Your task to perform on an android device: turn on sleep mode Image 0: 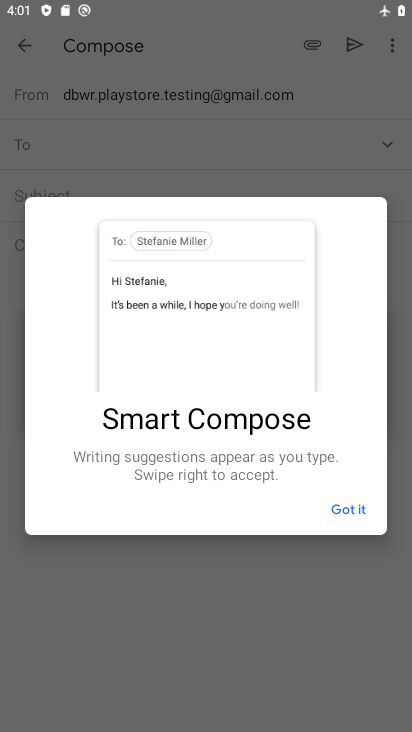
Step 0: press home button
Your task to perform on an android device: turn on sleep mode Image 1: 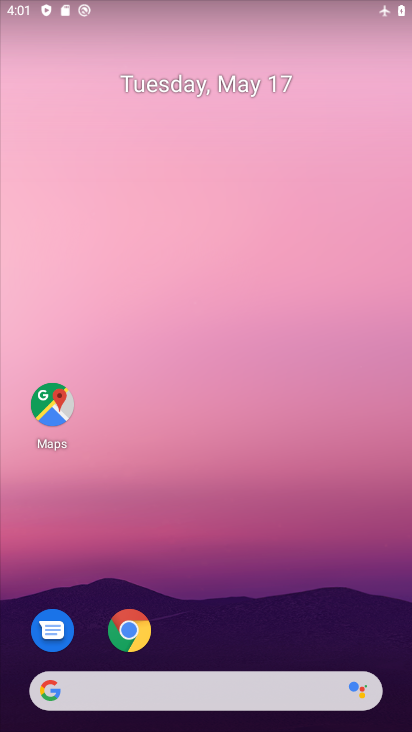
Step 1: drag from (227, 729) to (230, 241)
Your task to perform on an android device: turn on sleep mode Image 2: 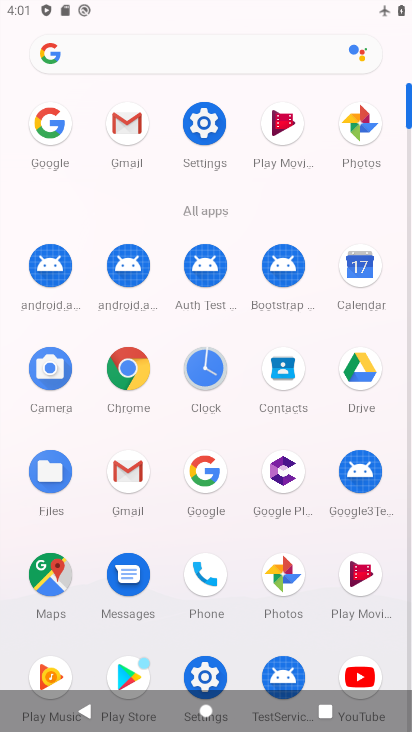
Step 2: click (209, 111)
Your task to perform on an android device: turn on sleep mode Image 3: 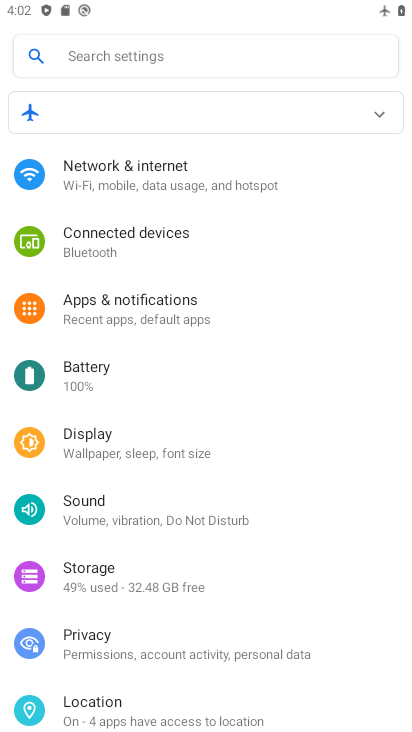
Step 3: click (101, 185)
Your task to perform on an android device: turn on sleep mode Image 4: 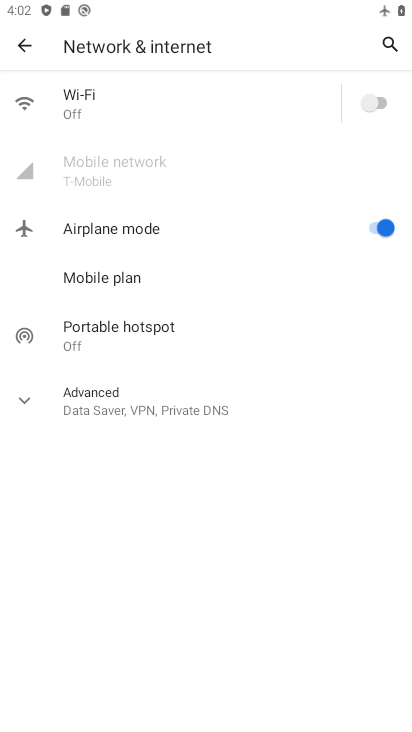
Step 4: press home button
Your task to perform on an android device: turn on sleep mode Image 5: 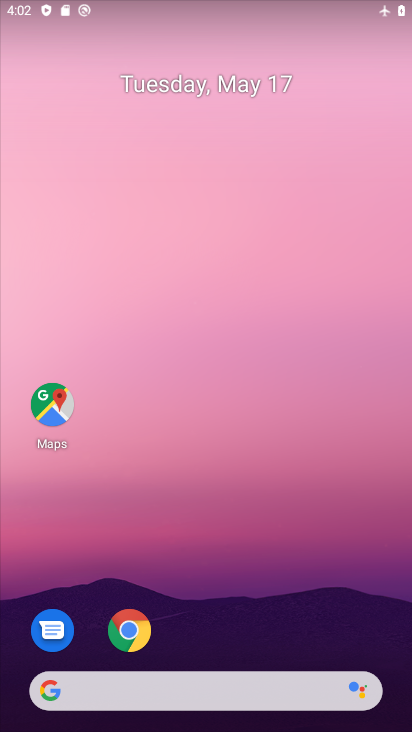
Step 5: drag from (212, 647) to (215, 287)
Your task to perform on an android device: turn on sleep mode Image 6: 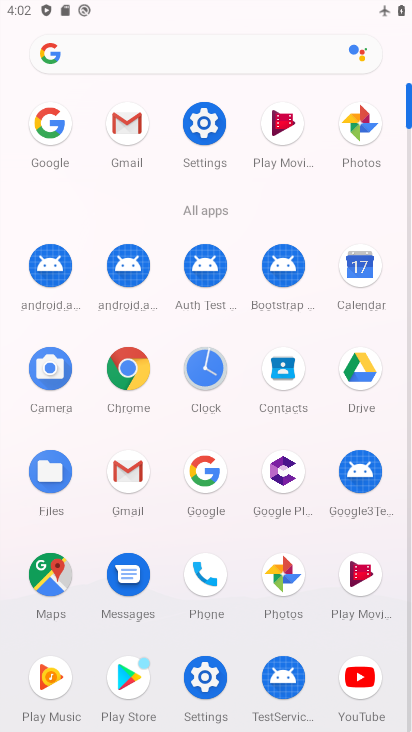
Step 6: click (211, 675)
Your task to perform on an android device: turn on sleep mode Image 7: 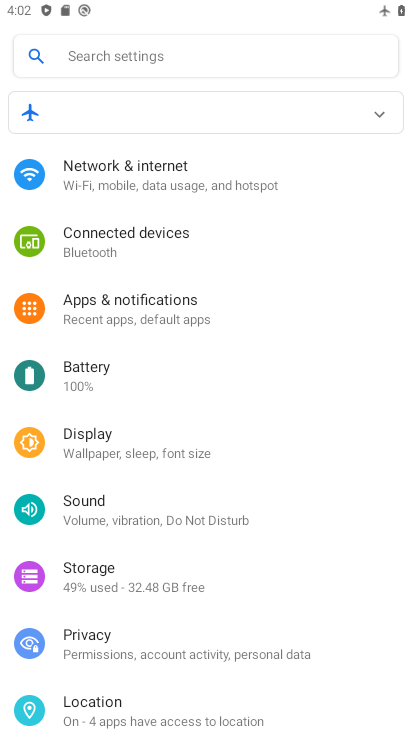
Step 7: drag from (182, 547) to (192, 302)
Your task to perform on an android device: turn on sleep mode Image 8: 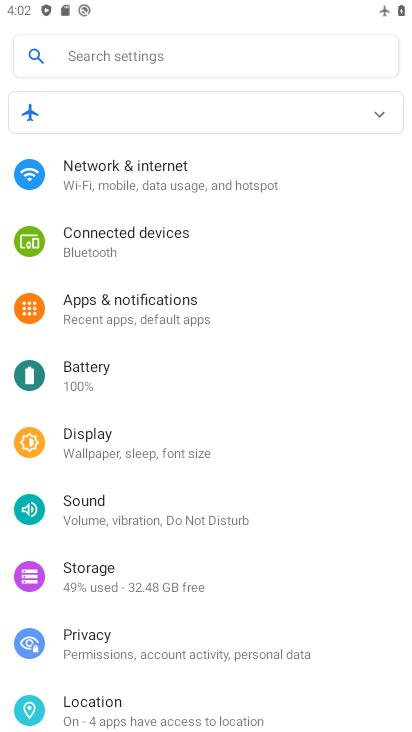
Step 8: drag from (196, 650) to (213, 344)
Your task to perform on an android device: turn on sleep mode Image 9: 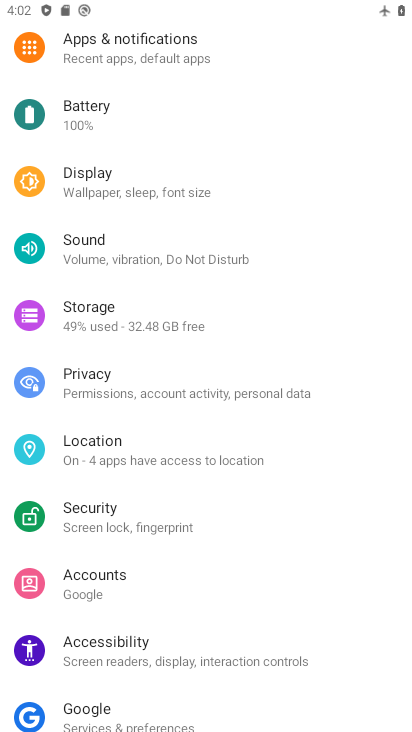
Step 9: click (194, 186)
Your task to perform on an android device: turn on sleep mode Image 10: 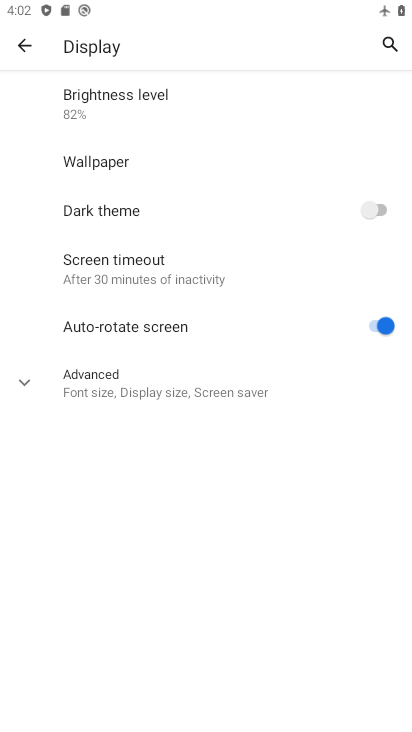
Step 10: task complete